Your task to perform on an android device: Search for seafood restaurants on Google Maps Image 0: 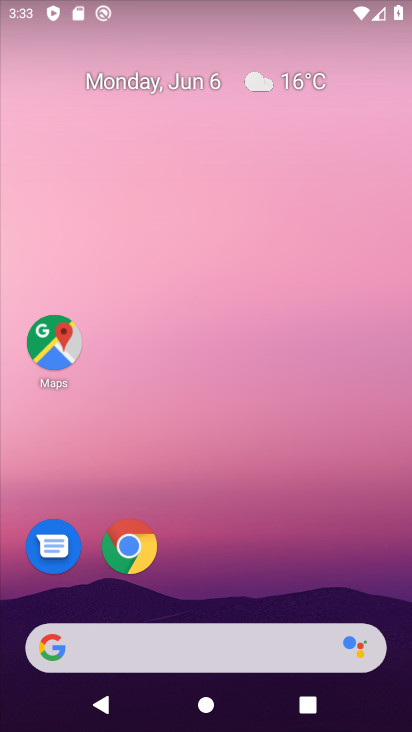
Step 0: drag from (294, 609) to (406, 11)
Your task to perform on an android device: Search for seafood restaurants on Google Maps Image 1: 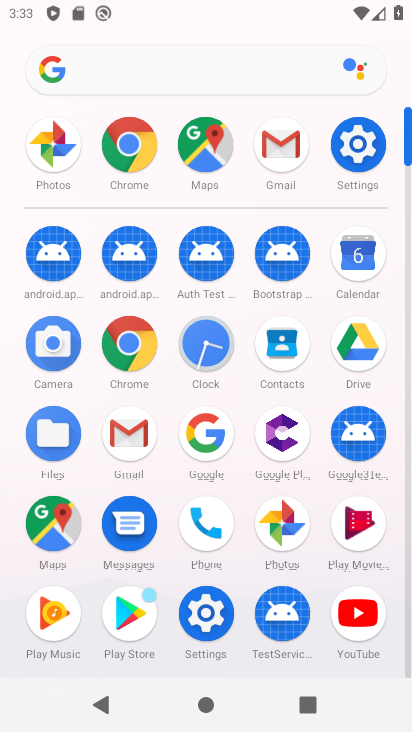
Step 1: click (67, 516)
Your task to perform on an android device: Search for seafood restaurants on Google Maps Image 2: 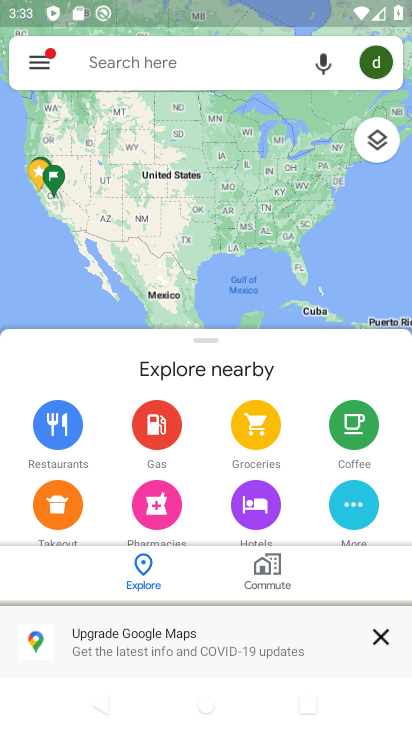
Step 2: click (181, 67)
Your task to perform on an android device: Search for seafood restaurants on Google Maps Image 3: 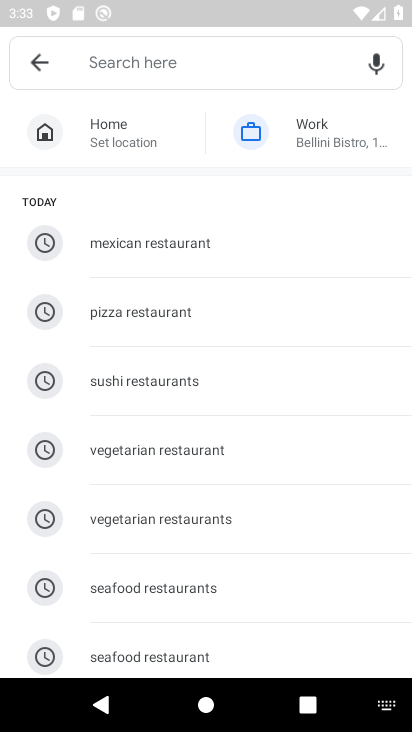
Step 3: click (168, 583)
Your task to perform on an android device: Search for seafood restaurants on Google Maps Image 4: 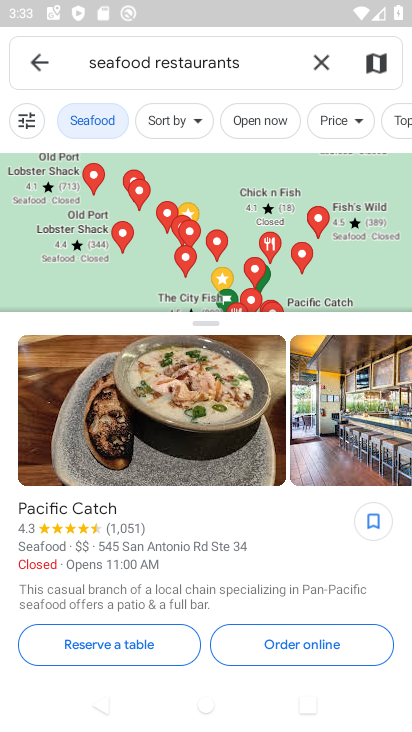
Step 4: task complete